Your task to perform on an android device: Search for Mexican restaurants on Maps Image 0: 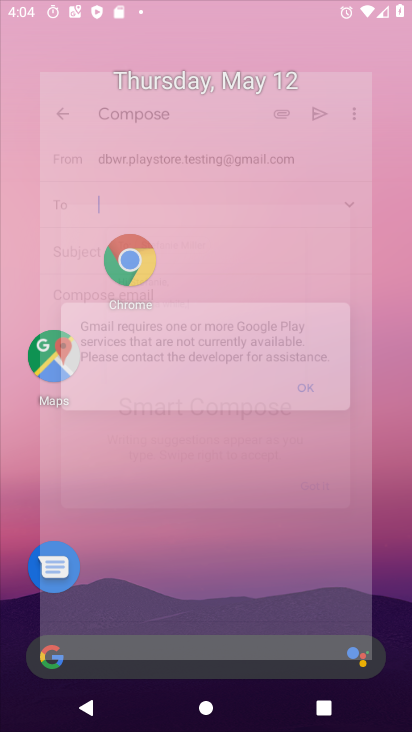
Step 0: click (145, 261)
Your task to perform on an android device: Search for Mexican restaurants on Maps Image 1: 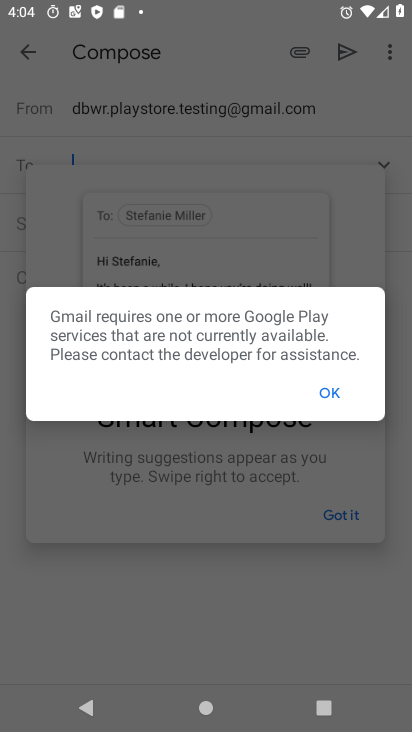
Step 1: press home button
Your task to perform on an android device: Search for Mexican restaurants on Maps Image 2: 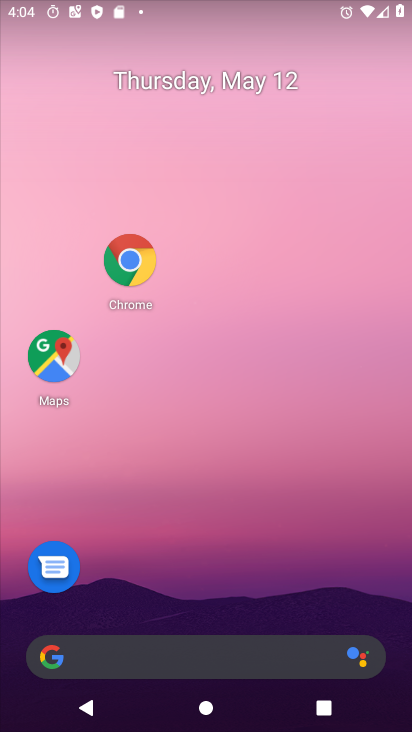
Step 2: click (69, 330)
Your task to perform on an android device: Search for Mexican restaurants on Maps Image 3: 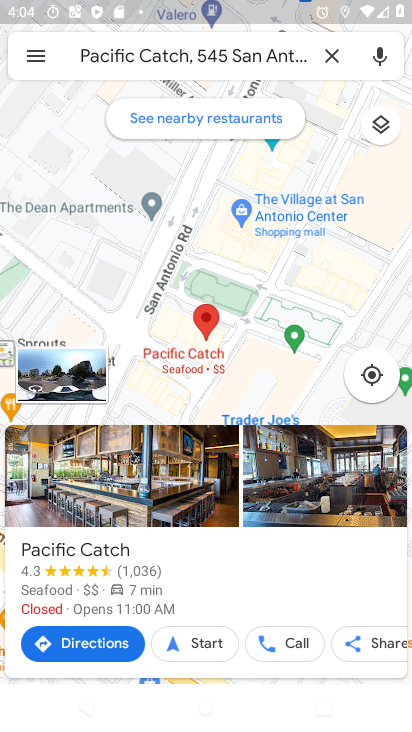
Step 3: click (336, 56)
Your task to perform on an android device: Search for Mexican restaurants on Maps Image 4: 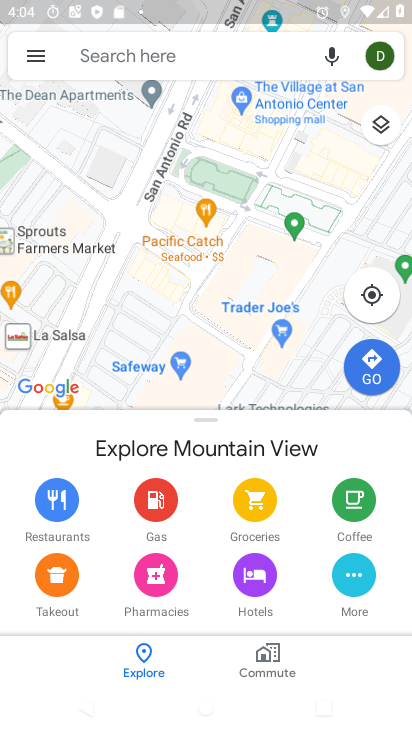
Step 4: click (120, 50)
Your task to perform on an android device: Search for Mexican restaurants on Maps Image 5: 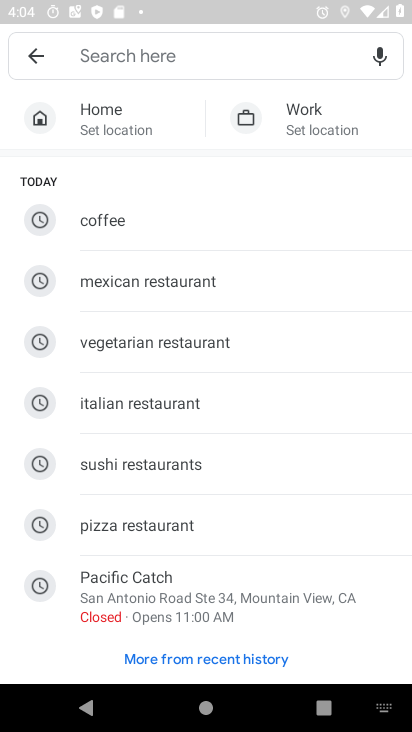
Step 5: click (166, 283)
Your task to perform on an android device: Search for Mexican restaurants on Maps Image 6: 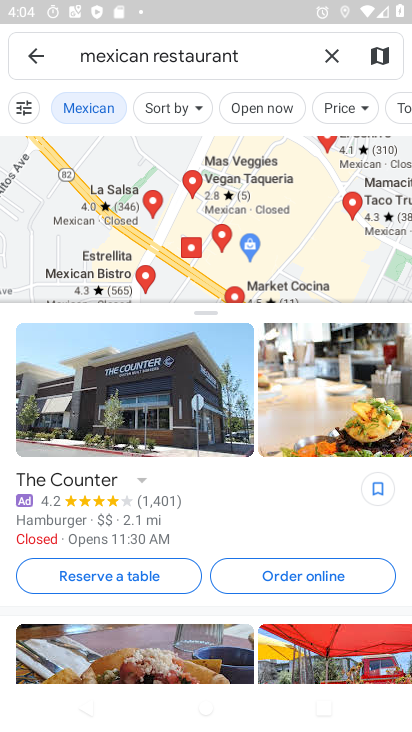
Step 6: task complete